Your task to perform on an android device: turn off smart reply in the gmail app Image 0: 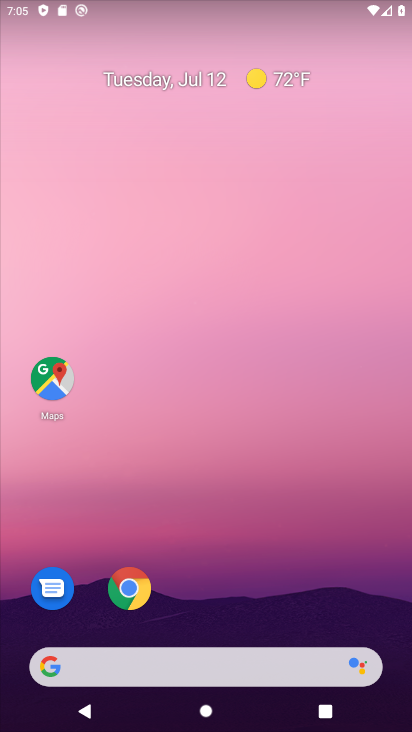
Step 0: drag from (251, 568) to (277, 29)
Your task to perform on an android device: turn off smart reply in the gmail app Image 1: 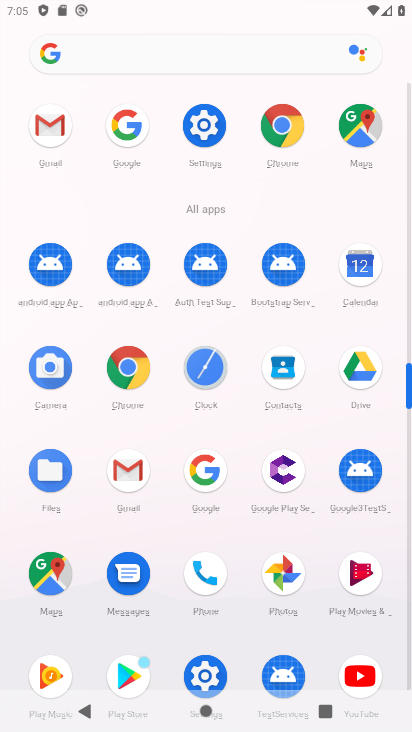
Step 1: click (29, 136)
Your task to perform on an android device: turn off smart reply in the gmail app Image 2: 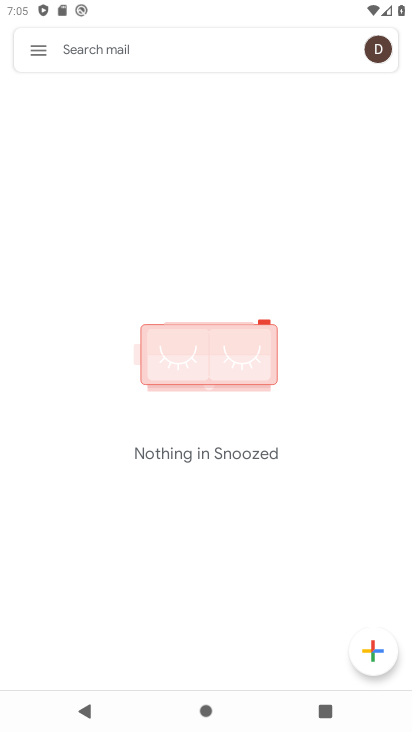
Step 2: click (40, 49)
Your task to perform on an android device: turn off smart reply in the gmail app Image 3: 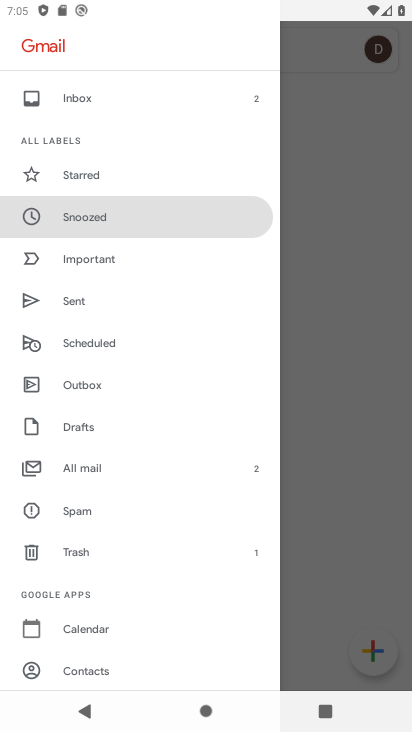
Step 3: drag from (112, 604) to (215, 173)
Your task to perform on an android device: turn off smart reply in the gmail app Image 4: 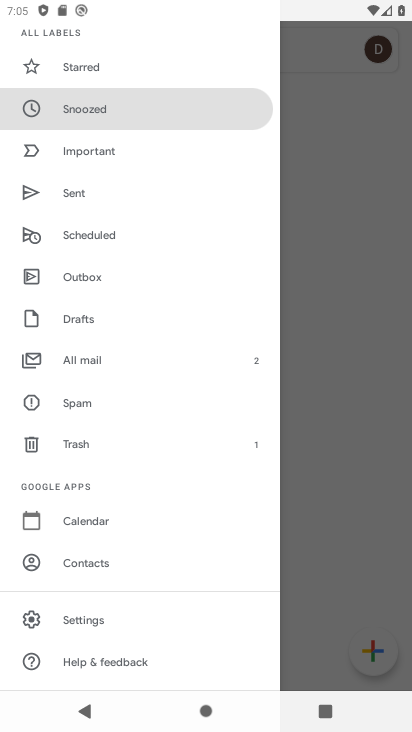
Step 4: click (74, 615)
Your task to perform on an android device: turn off smart reply in the gmail app Image 5: 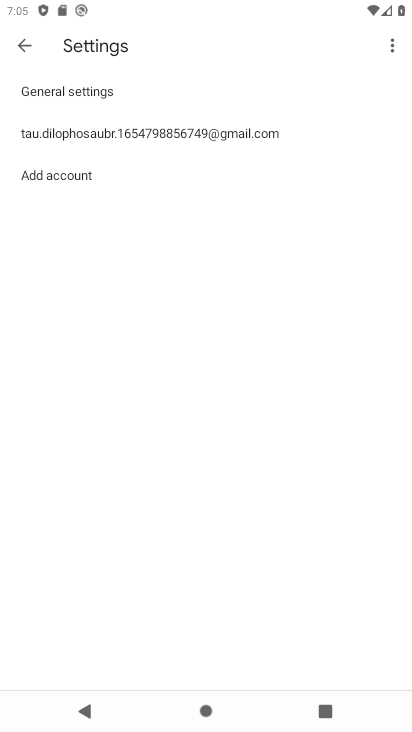
Step 5: click (135, 136)
Your task to perform on an android device: turn off smart reply in the gmail app Image 6: 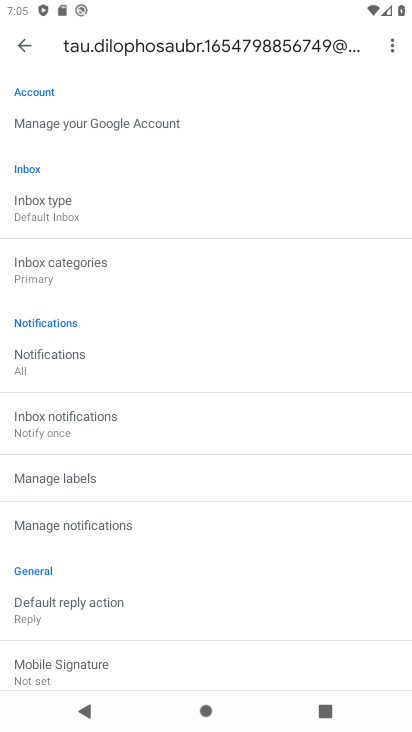
Step 6: drag from (113, 629) to (208, 240)
Your task to perform on an android device: turn off smart reply in the gmail app Image 7: 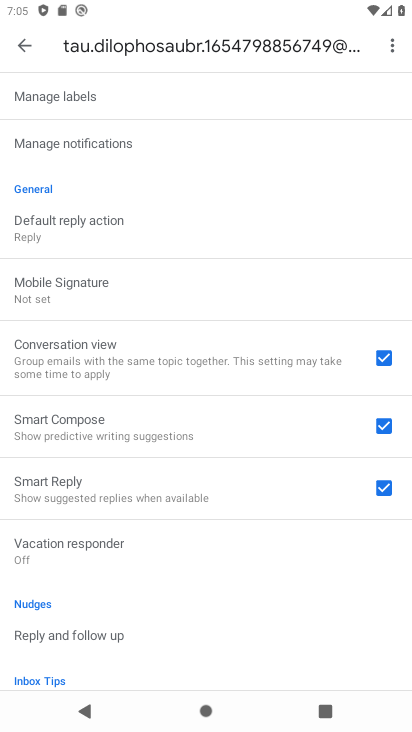
Step 7: click (383, 485)
Your task to perform on an android device: turn off smart reply in the gmail app Image 8: 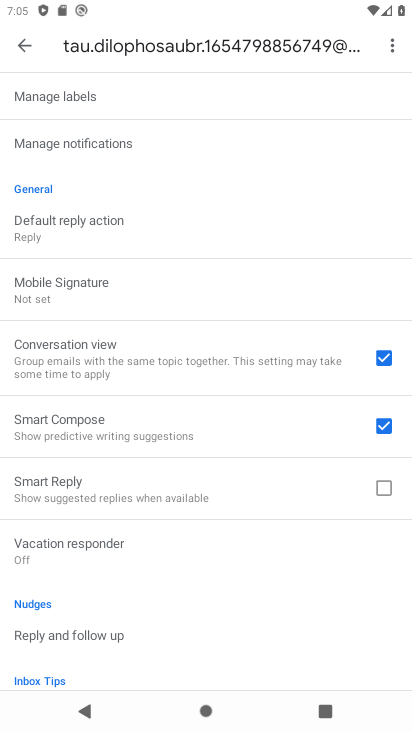
Step 8: task complete